Your task to perform on an android device: show emergency info Image 0: 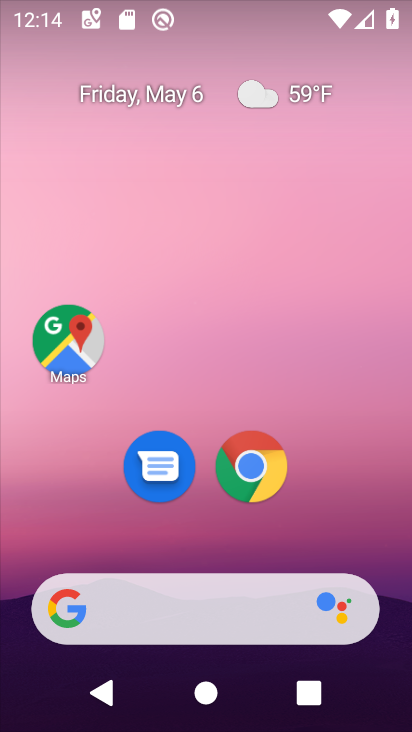
Step 0: drag from (368, 513) to (283, 180)
Your task to perform on an android device: show emergency info Image 1: 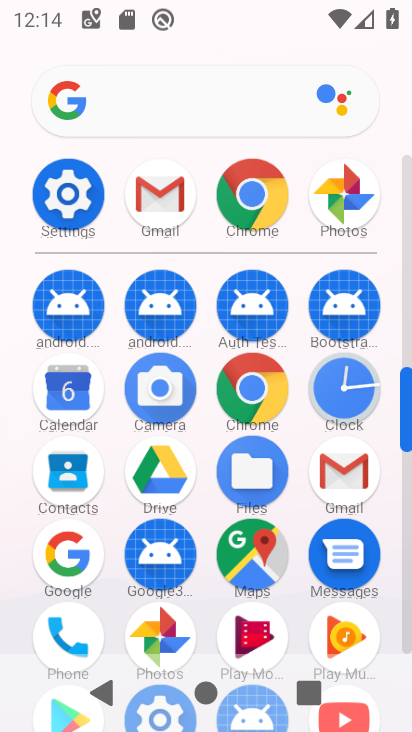
Step 1: click (71, 210)
Your task to perform on an android device: show emergency info Image 2: 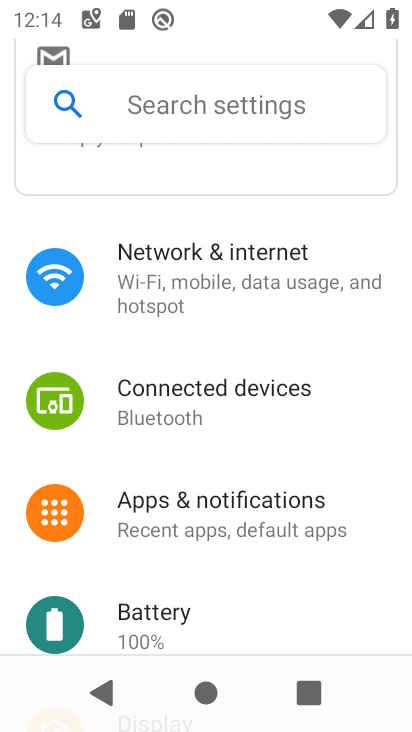
Step 2: drag from (310, 613) to (238, 141)
Your task to perform on an android device: show emergency info Image 3: 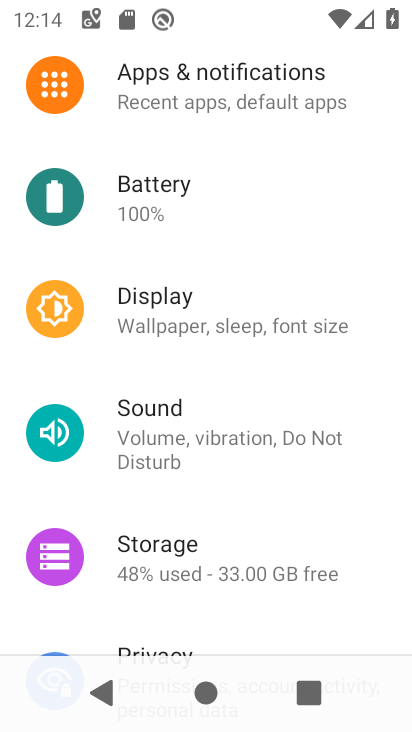
Step 3: drag from (276, 535) to (245, 106)
Your task to perform on an android device: show emergency info Image 4: 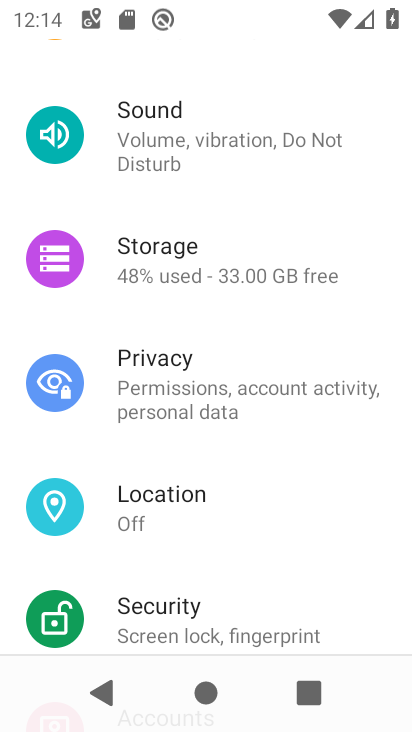
Step 4: drag from (297, 530) to (215, 68)
Your task to perform on an android device: show emergency info Image 5: 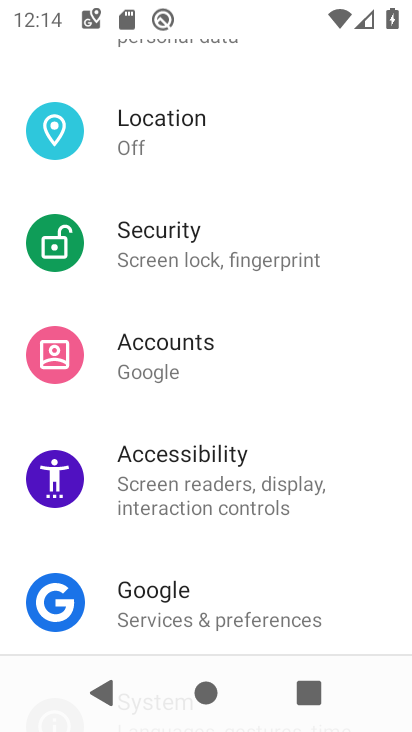
Step 5: drag from (211, 595) to (165, 154)
Your task to perform on an android device: show emergency info Image 6: 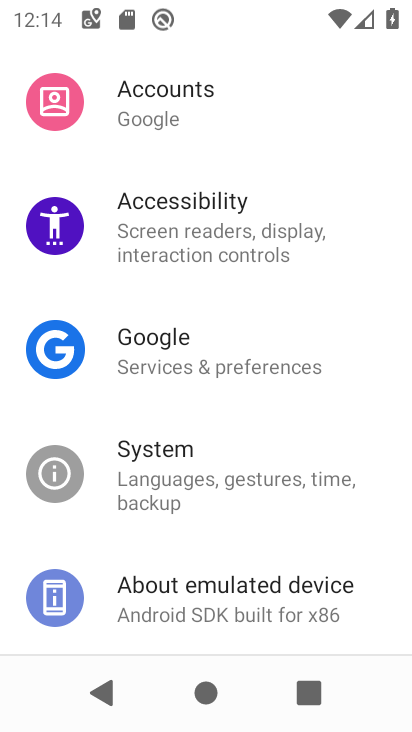
Step 6: click (239, 605)
Your task to perform on an android device: show emergency info Image 7: 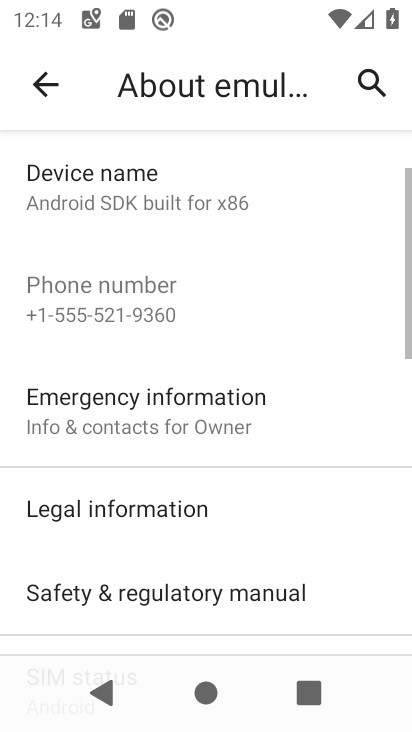
Step 7: click (242, 410)
Your task to perform on an android device: show emergency info Image 8: 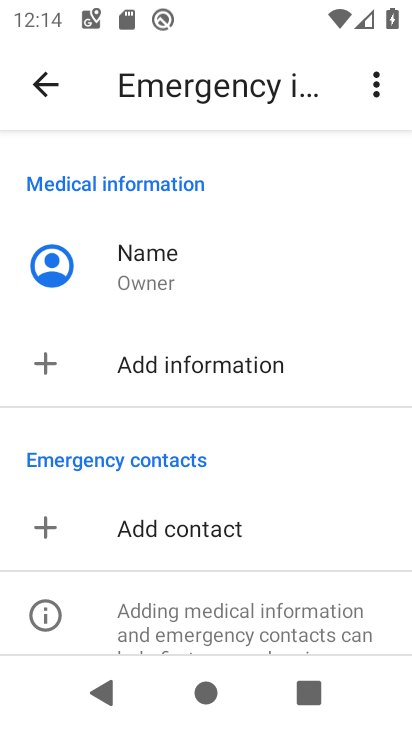
Step 8: task complete